Your task to perform on an android device: Go to network settings Image 0: 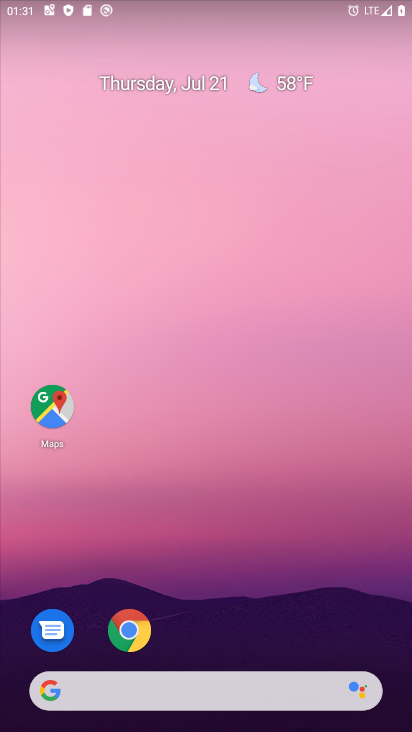
Step 0: drag from (194, 10) to (225, 683)
Your task to perform on an android device: Go to network settings Image 1: 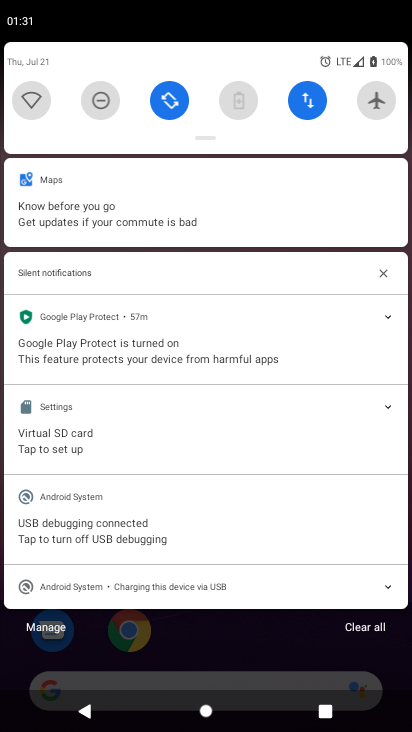
Step 1: click (310, 95)
Your task to perform on an android device: Go to network settings Image 2: 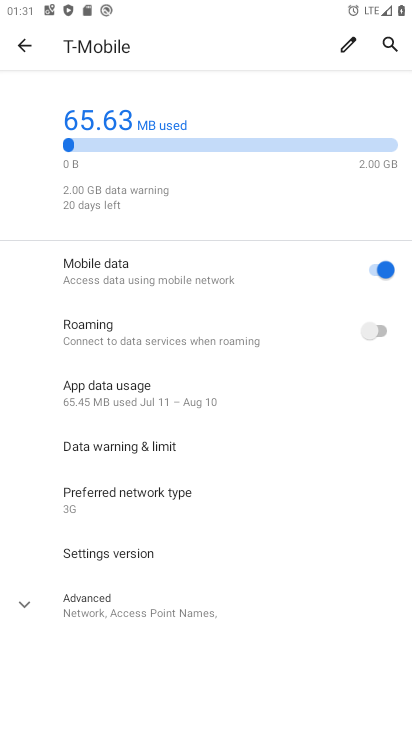
Step 2: task complete